Your task to perform on an android device: Check the news Image 0: 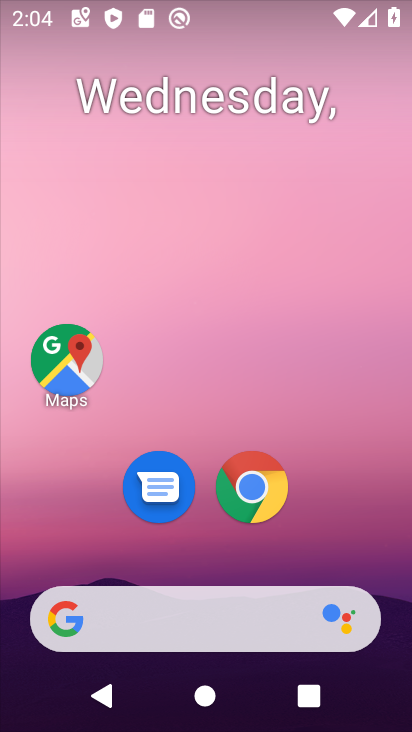
Step 0: click (256, 492)
Your task to perform on an android device: Check the news Image 1: 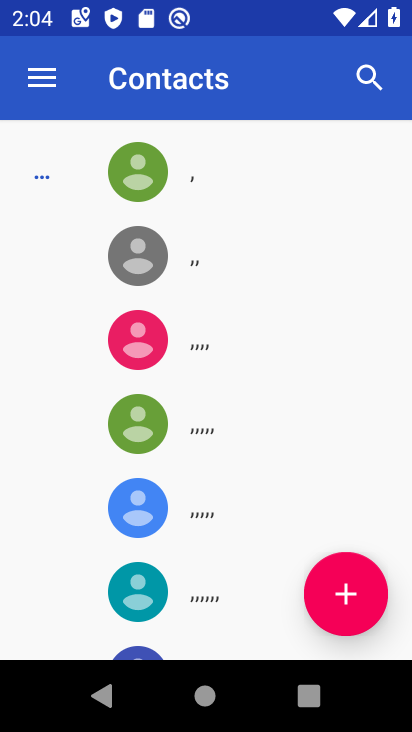
Step 1: press home button
Your task to perform on an android device: Check the news Image 2: 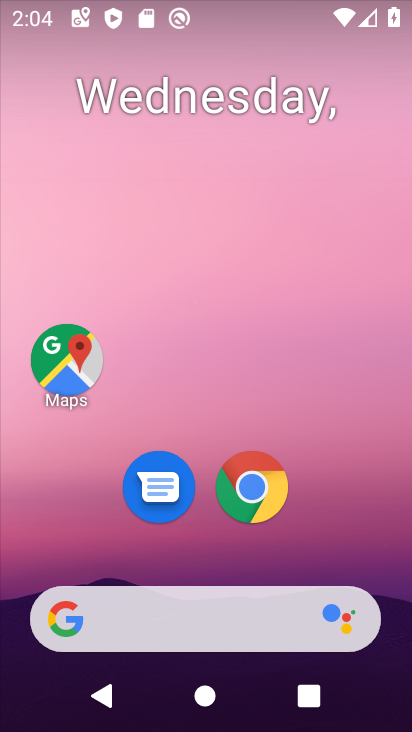
Step 2: click (147, 616)
Your task to perform on an android device: Check the news Image 3: 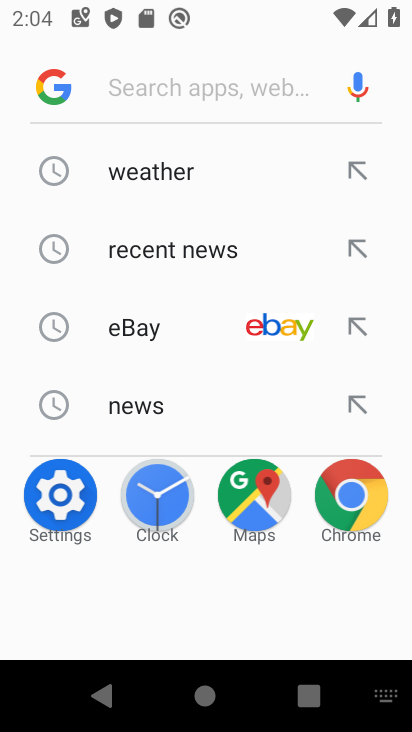
Step 3: click (141, 408)
Your task to perform on an android device: Check the news Image 4: 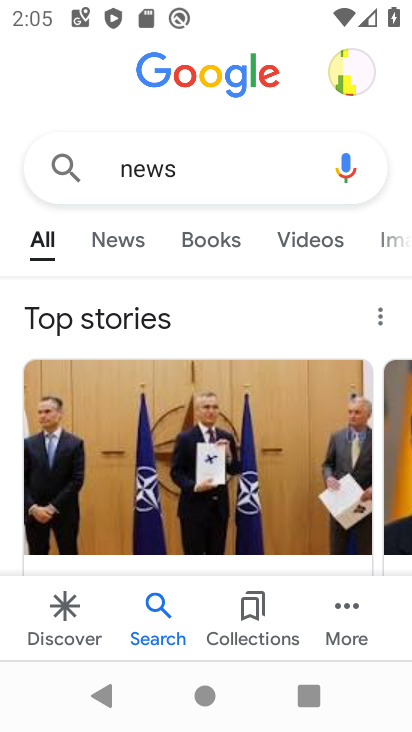
Step 4: task complete